Your task to perform on an android device: Open notification settings Image 0: 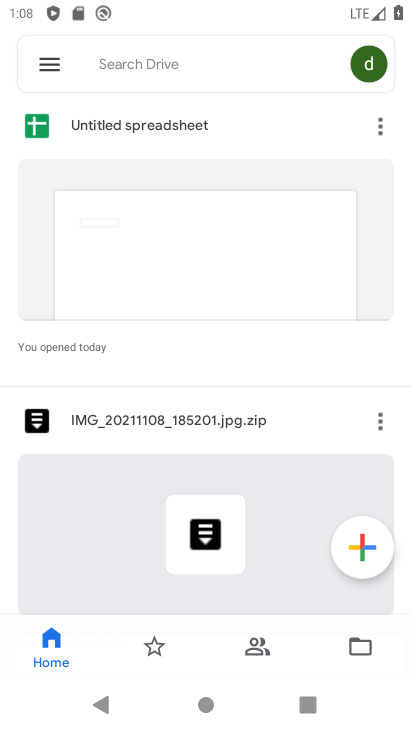
Step 0: press home button
Your task to perform on an android device: Open notification settings Image 1: 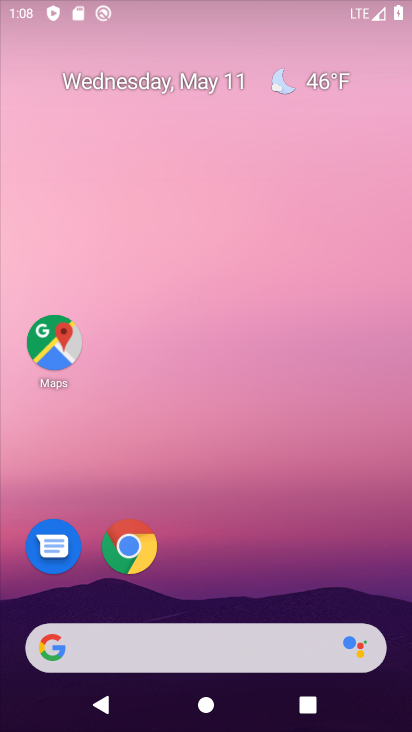
Step 1: drag from (250, 704) to (274, 268)
Your task to perform on an android device: Open notification settings Image 2: 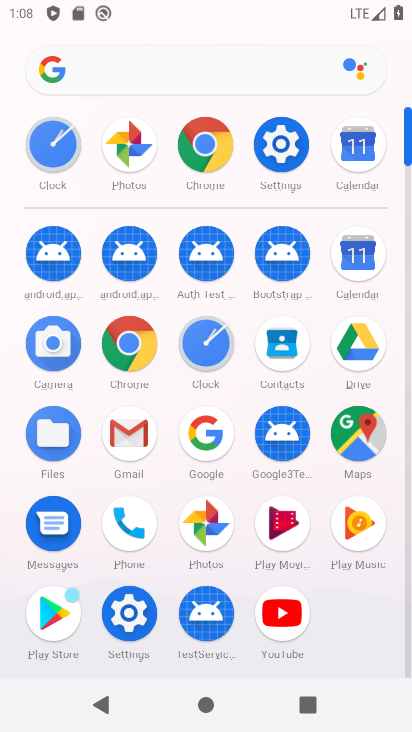
Step 2: click (136, 596)
Your task to perform on an android device: Open notification settings Image 3: 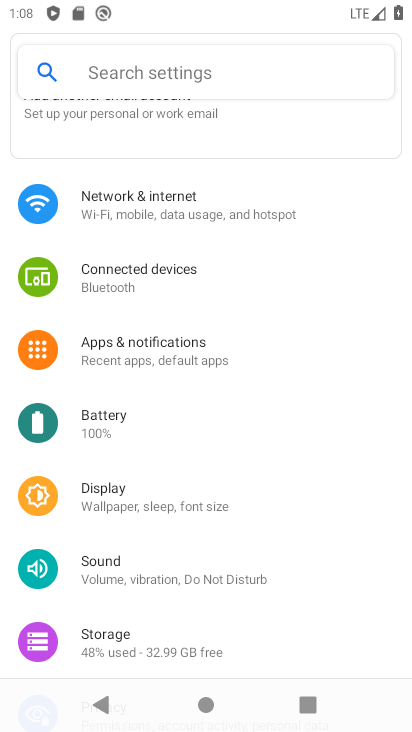
Step 3: click (183, 78)
Your task to perform on an android device: Open notification settings Image 4: 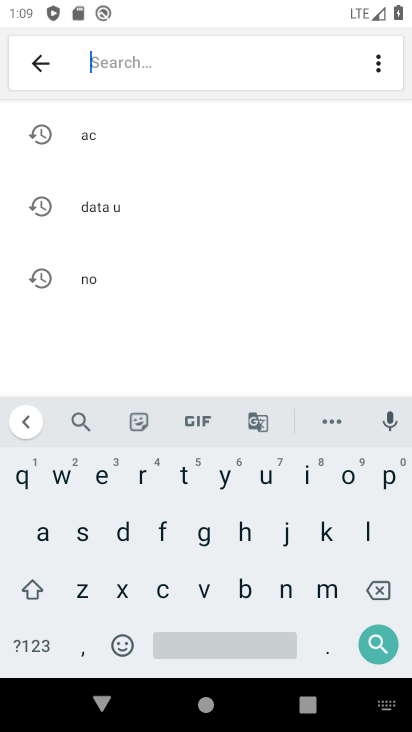
Step 4: click (121, 284)
Your task to perform on an android device: Open notification settings Image 5: 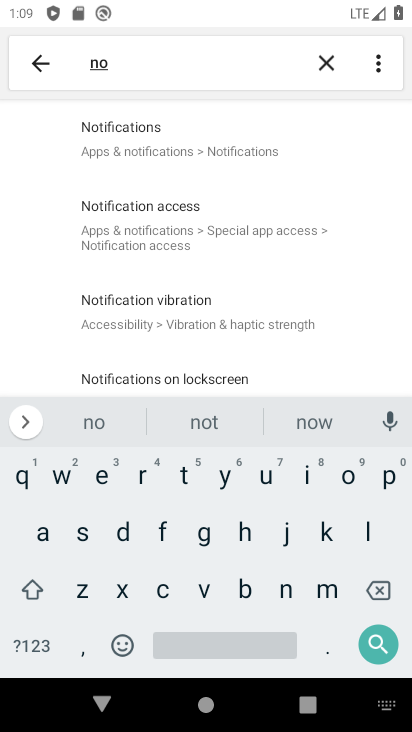
Step 5: click (166, 145)
Your task to perform on an android device: Open notification settings Image 6: 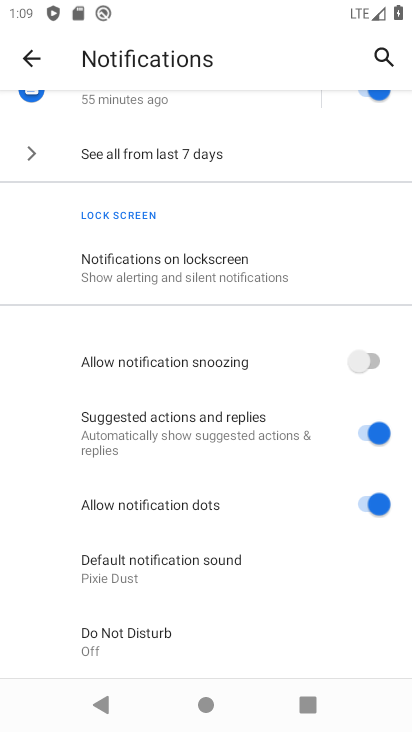
Step 6: click (152, 277)
Your task to perform on an android device: Open notification settings Image 7: 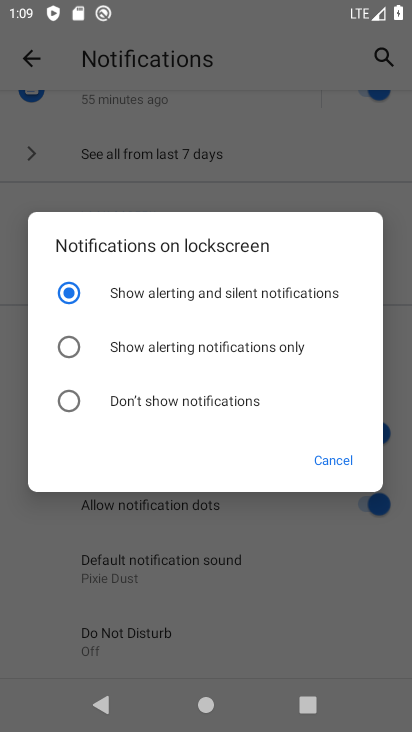
Step 7: task complete